Your task to perform on an android device: move a message to another label in the gmail app Image 0: 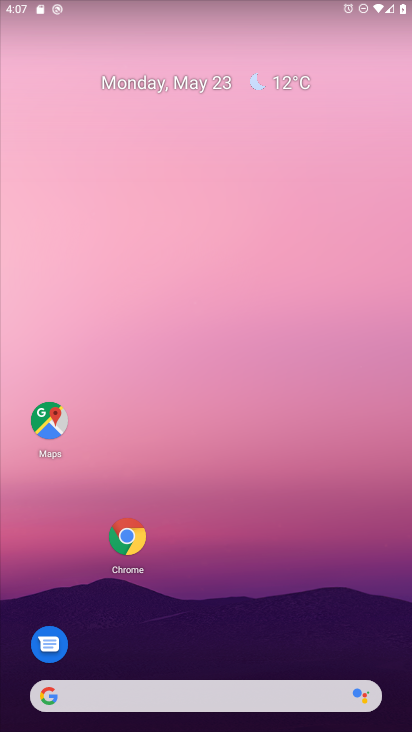
Step 0: drag from (230, 606) to (212, 139)
Your task to perform on an android device: move a message to another label in the gmail app Image 1: 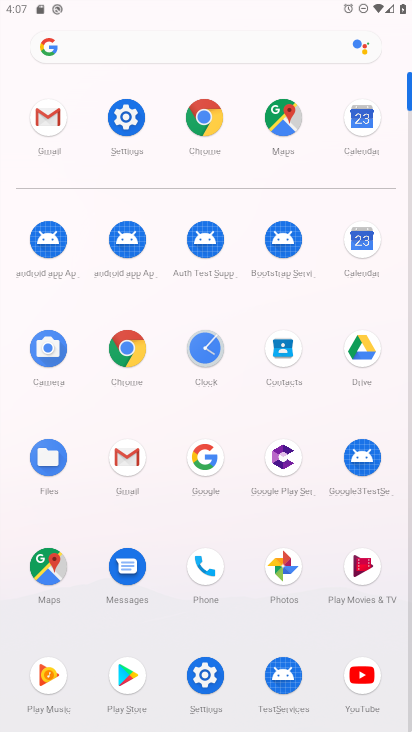
Step 1: click (37, 118)
Your task to perform on an android device: move a message to another label in the gmail app Image 2: 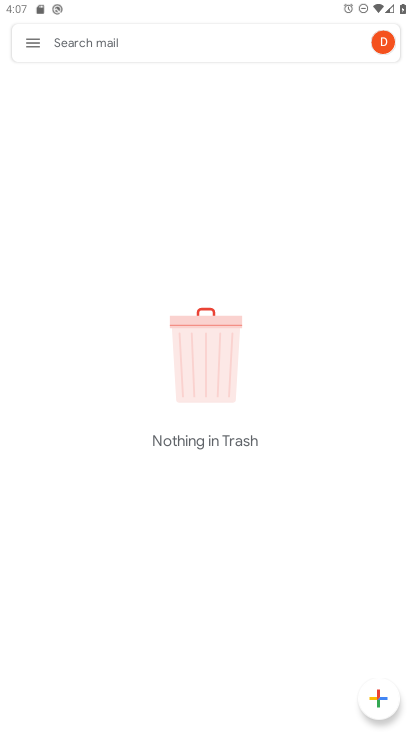
Step 2: click (34, 35)
Your task to perform on an android device: move a message to another label in the gmail app Image 3: 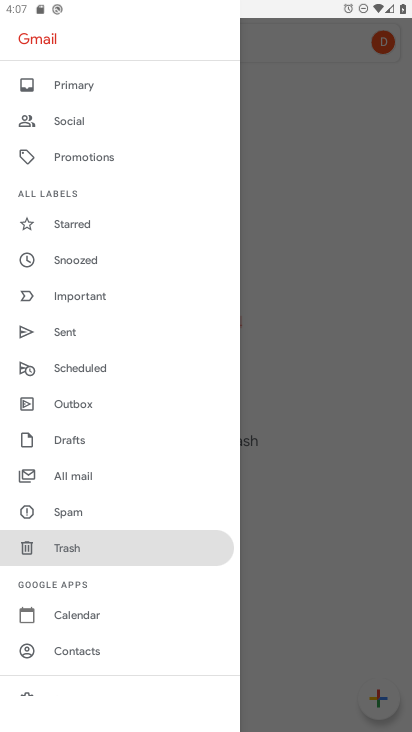
Step 3: click (82, 478)
Your task to perform on an android device: move a message to another label in the gmail app Image 4: 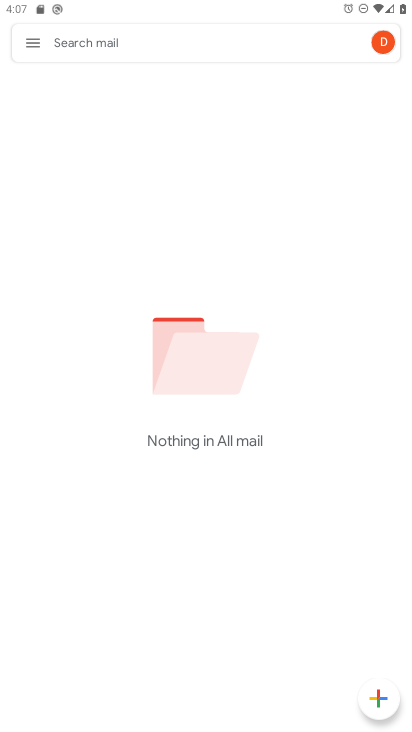
Step 4: task complete